Your task to perform on an android device: turn on sleep mode Image 0: 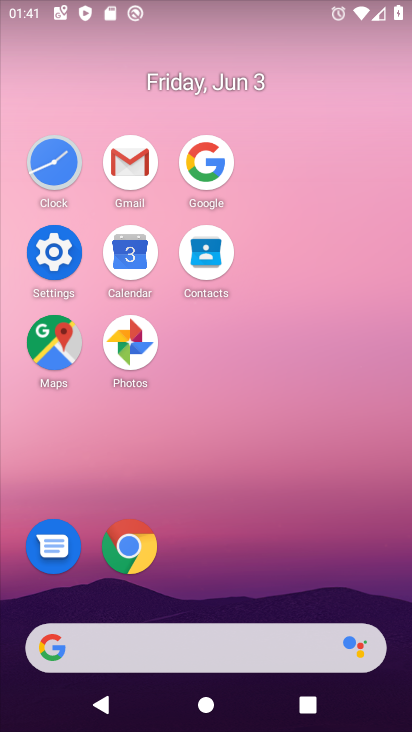
Step 0: click (50, 259)
Your task to perform on an android device: turn on sleep mode Image 1: 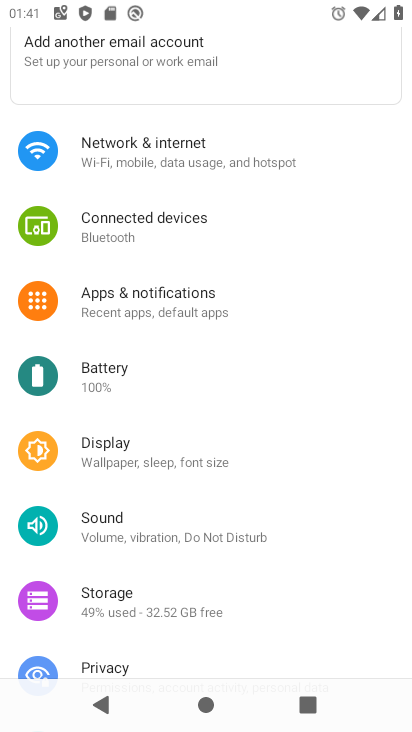
Step 1: click (206, 469)
Your task to perform on an android device: turn on sleep mode Image 2: 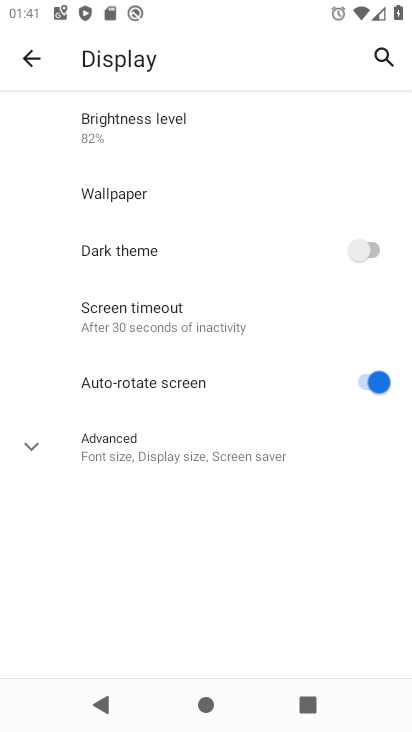
Step 2: click (208, 330)
Your task to perform on an android device: turn on sleep mode Image 3: 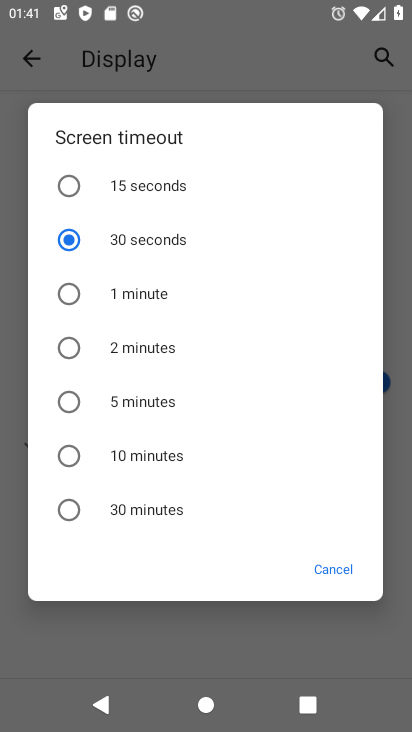
Step 3: task complete